Your task to perform on an android device: Do I have any events tomorrow? Image 0: 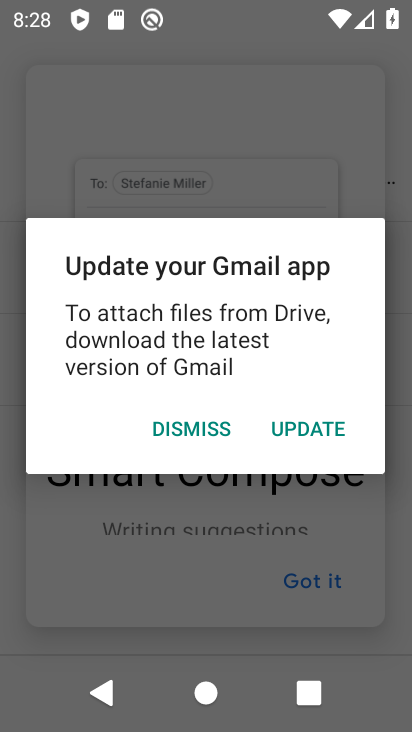
Step 0: press home button
Your task to perform on an android device: Do I have any events tomorrow? Image 1: 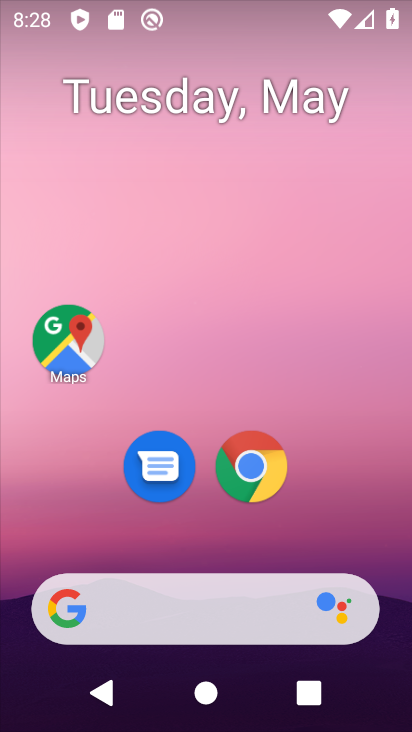
Step 1: drag from (204, 528) to (203, 184)
Your task to perform on an android device: Do I have any events tomorrow? Image 2: 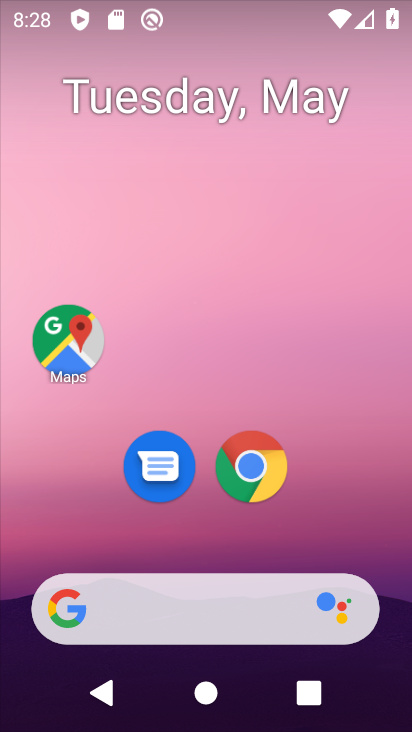
Step 2: drag from (212, 547) to (205, 452)
Your task to perform on an android device: Do I have any events tomorrow? Image 3: 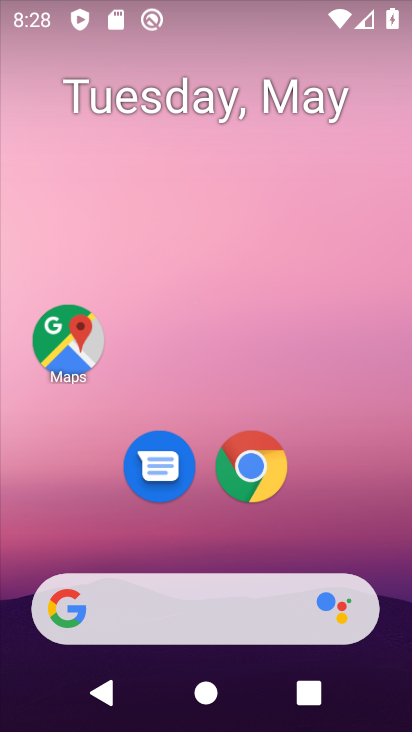
Step 3: drag from (209, 534) to (236, 99)
Your task to perform on an android device: Do I have any events tomorrow? Image 4: 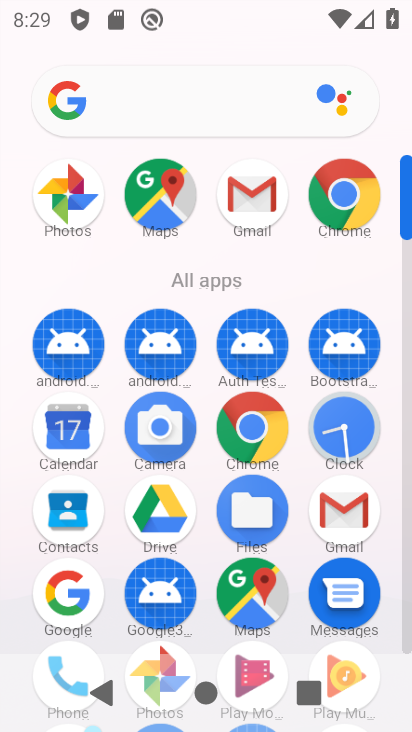
Step 4: click (63, 431)
Your task to perform on an android device: Do I have any events tomorrow? Image 5: 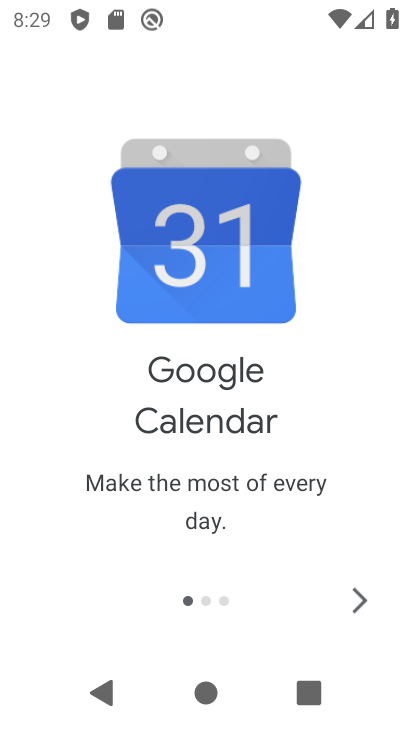
Step 5: click (355, 582)
Your task to perform on an android device: Do I have any events tomorrow? Image 6: 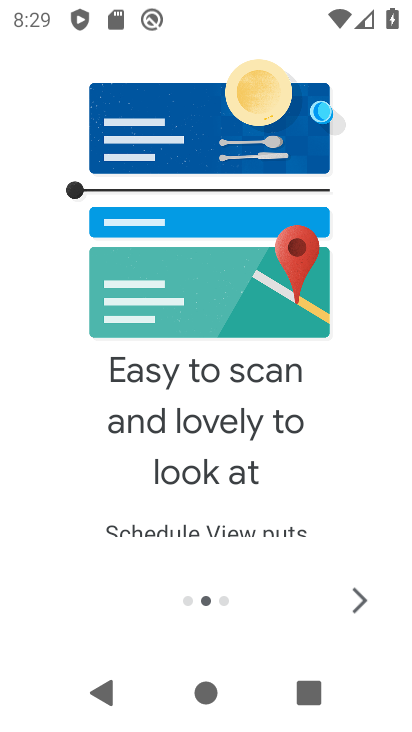
Step 6: click (354, 576)
Your task to perform on an android device: Do I have any events tomorrow? Image 7: 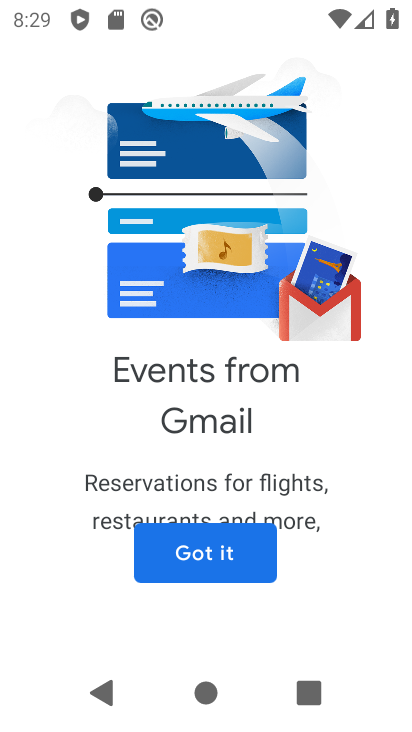
Step 7: click (179, 536)
Your task to perform on an android device: Do I have any events tomorrow? Image 8: 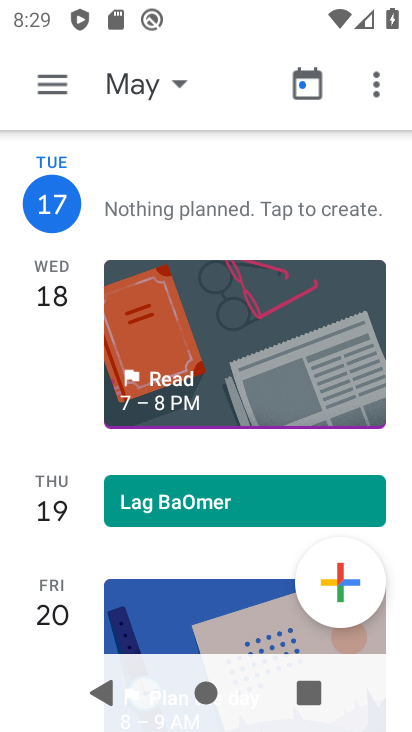
Step 8: click (57, 80)
Your task to perform on an android device: Do I have any events tomorrow? Image 9: 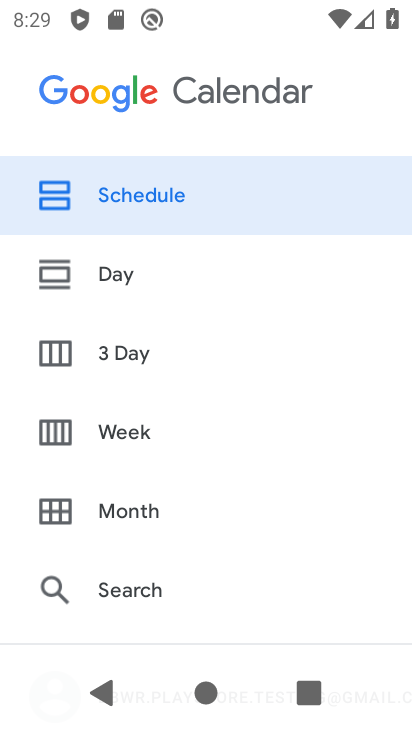
Step 9: drag from (103, 561) to (111, 230)
Your task to perform on an android device: Do I have any events tomorrow? Image 10: 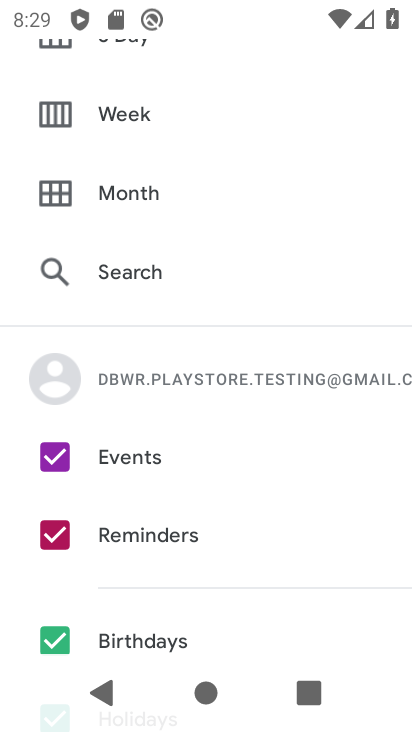
Step 10: click (52, 530)
Your task to perform on an android device: Do I have any events tomorrow? Image 11: 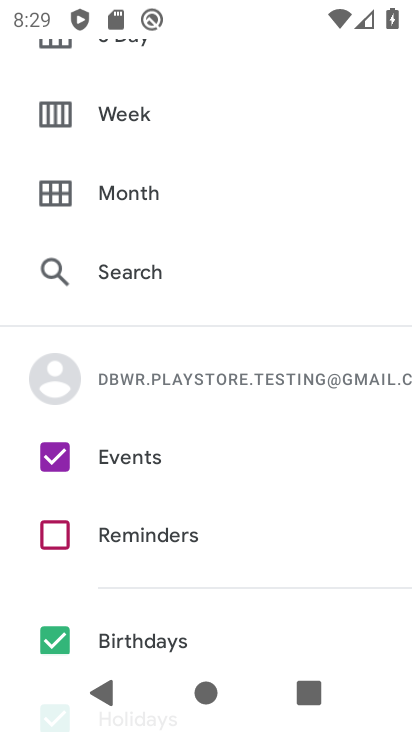
Step 11: drag from (147, 582) to (224, 112)
Your task to perform on an android device: Do I have any events tomorrow? Image 12: 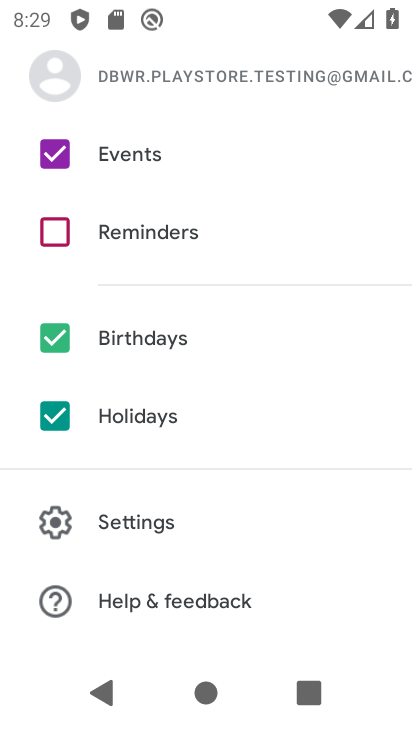
Step 12: click (56, 334)
Your task to perform on an android device: Do I have any events tomorrow? Image 13: 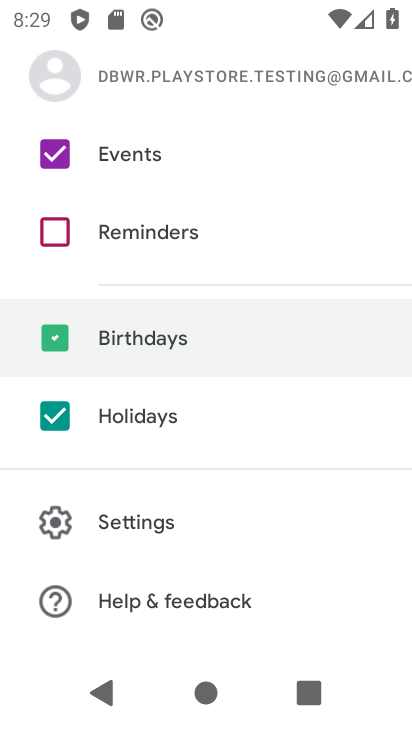
Step 13: click (61, 406)
Your task to perform on an android device: Do I have any events tomorrow? Image 14: 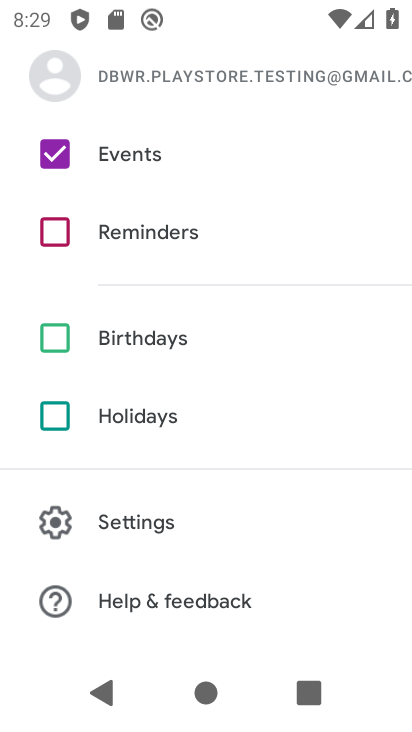
Step 14: drag from (129, 180) to (124, 724)
Your task to perform on an android device: Do I have any events tomorrow? Image 15: 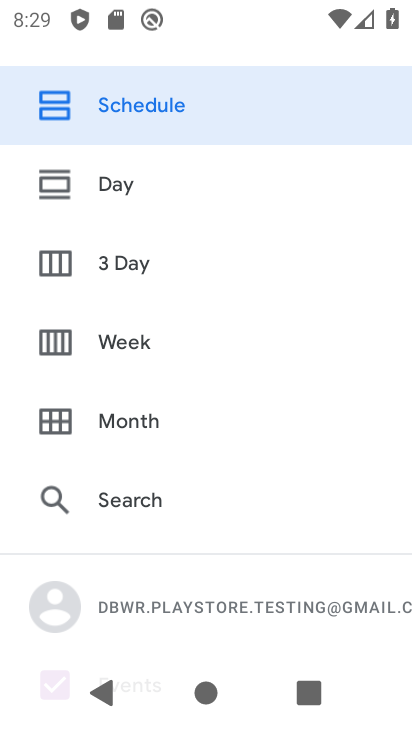
Step 15: click (88, 177)
Your task to perform on an android device: Do I have any events tomorrow? Image 16: 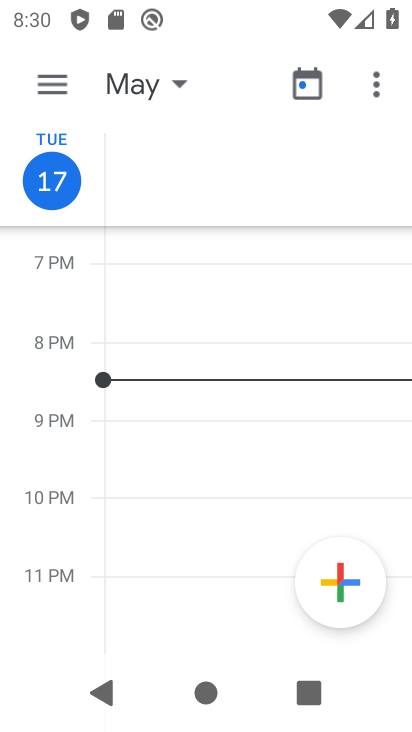
Step 16: click (94, 187)
Your task to perform on an android device: Do I have any events tomorrow? Image 17: 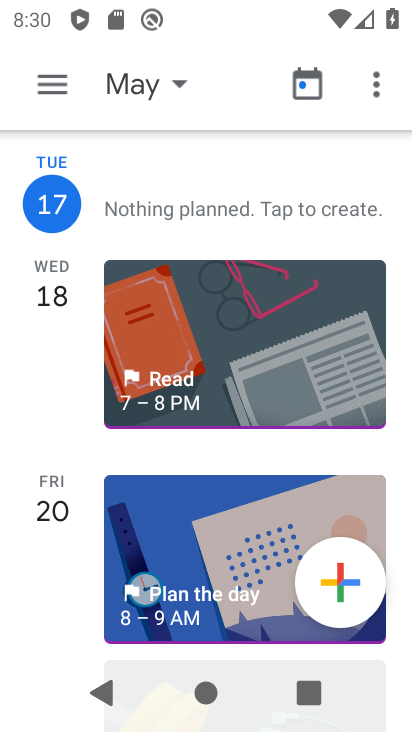
Step 17: click (54, 327)
Your task to perform on an android device: Do I have any events tomorrow? Image 18: 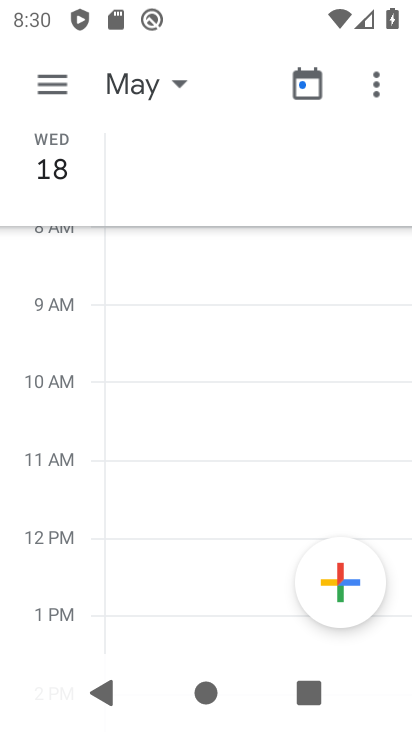
Step 18: task complete